Your task to perform on an android device: open sync settings in chrome Image 0: 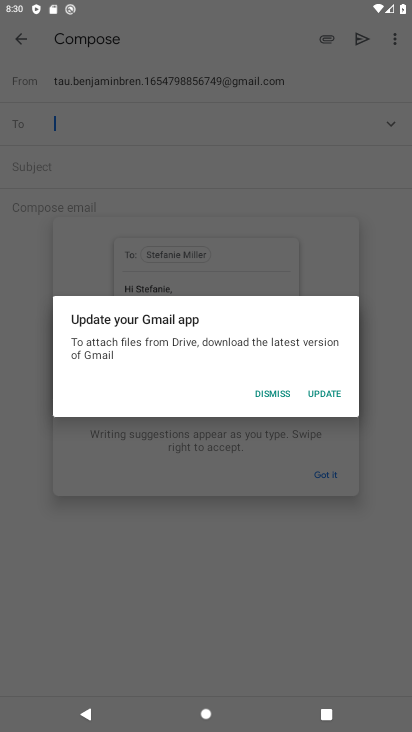
Step 0: press home button
Your task to perform on an android device: open sync settings in chrome Image 1: 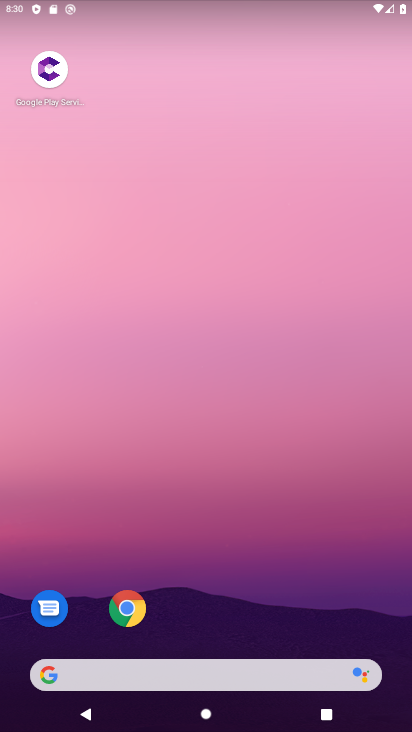
Step 1: drag from (210, 242) to (235, 22)
Your task to perform on an android device: open sync settings in chrome Image 2: 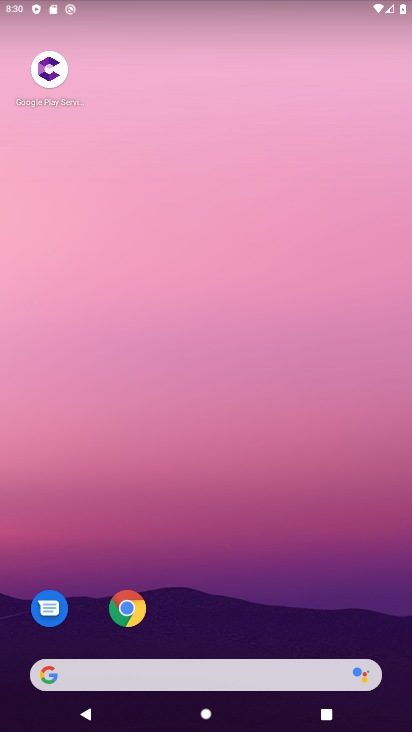
Step 2: drag from (249, 650) to (270, 0)
Your task to perform on an android device: open sync settings in chrome Image 3: 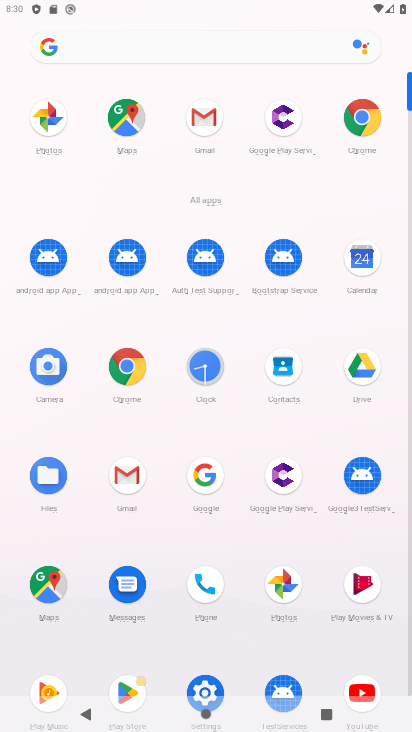
Step 3: click (127, 375)
Your task to perform on an android device: open sync settings in chrome Image 4: 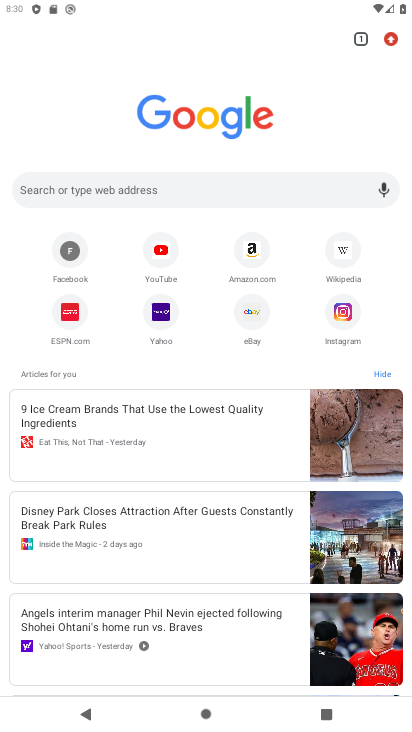
Step 4: click (387, 41)
Your task to perform on an android device: open sync settings in chrome Image 5: 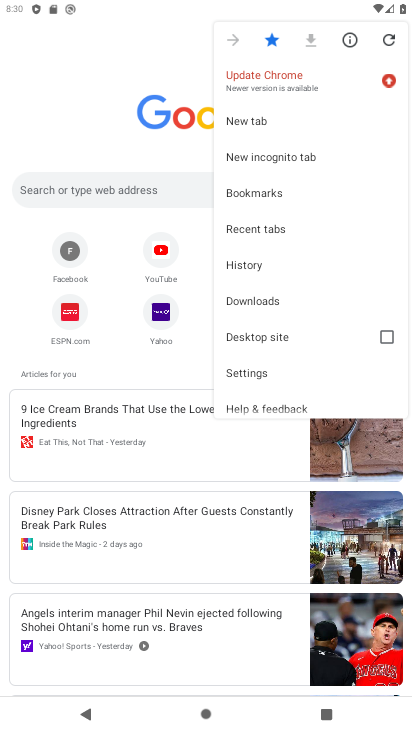
Step 5: click (254, 377)
Your task to perform on an android device: open sync settings in chrome Image 6: 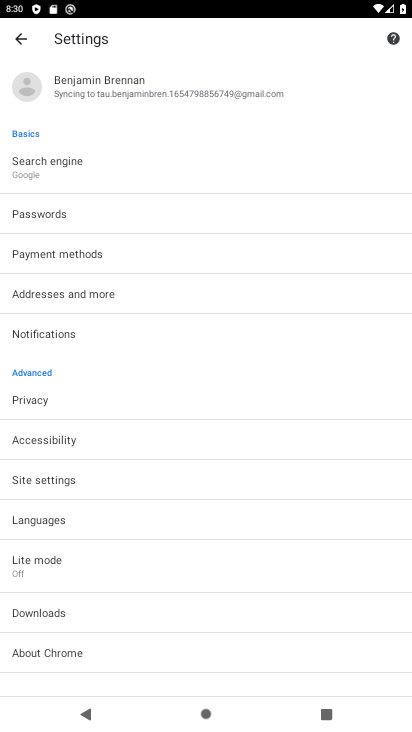
Step 6: click (165, 85)
Your task to perform on an android device: open sync settings in chrome Image 7: 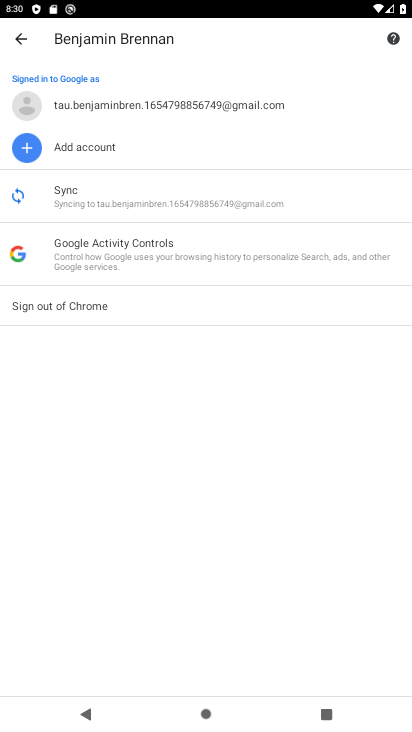
Step 7: click (134, 202)
Your task to perform on an android device: open sync settings in chrome Image 8: 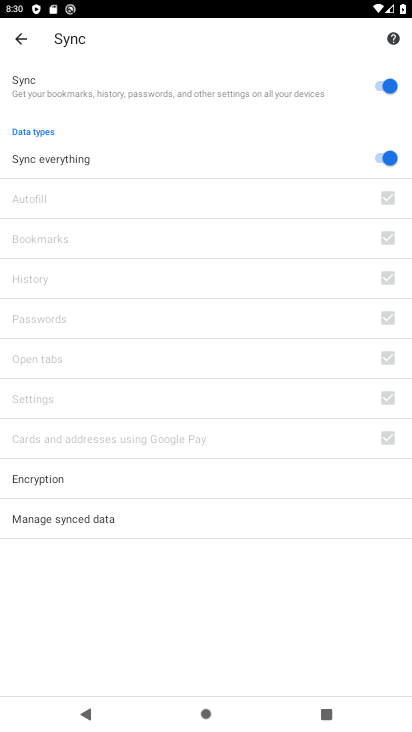
Step 8: task complete